Your task to perform on an android device: Search for pizza restaurants on Maps Image 0: 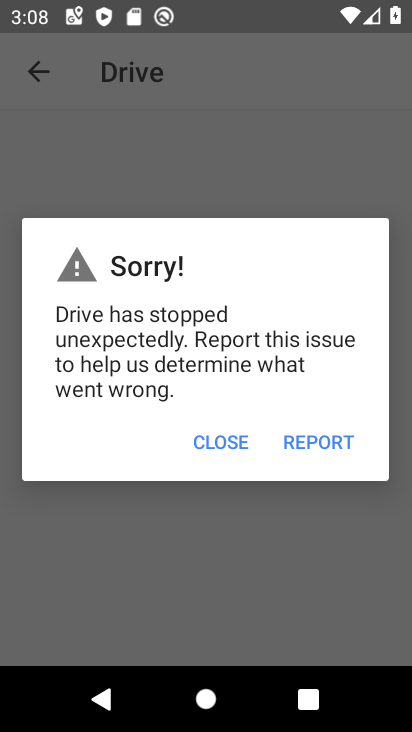
Step 0: press back button
Your task to perform on an android device: Search for pizza restaurants on Maps Image 1: 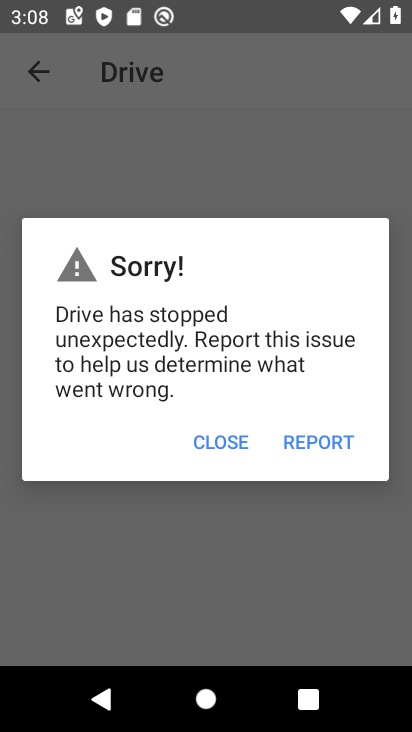
Step 1: press home button
Your task to perform on an android device: Search for pizza restaurants on Maps Image 2: 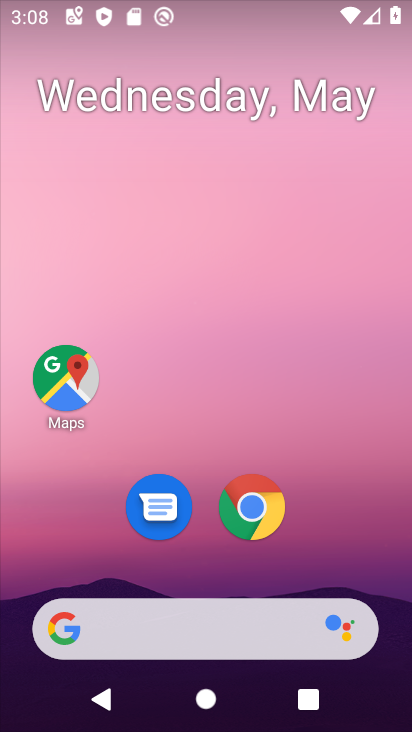
Step 2: click (44, 368)
Your task to perform on an android device: Search for pizza restaurants on Maps Image 3: 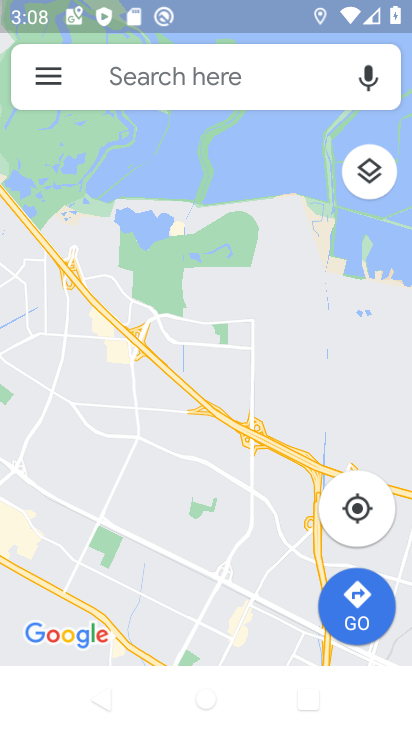
Step 3: click (211, 64)
Your task to perform on an android device: Search for pizza restaurants on Maps Image 4: 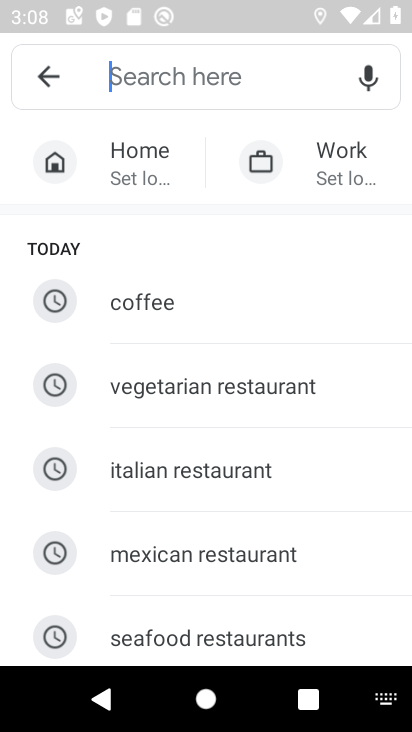
Step 4: drag from (157, 536) to (235, 160)
Your task to perform on an android device: Search for pizza restaurants on Maps Image 5: 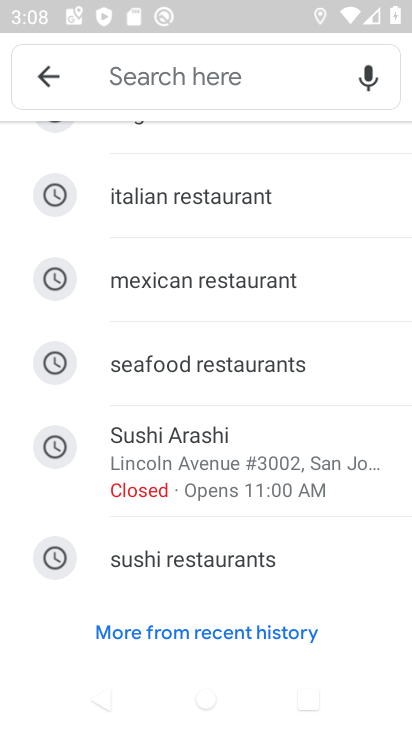
Step 5: click (133, 71)
Your task to perform on an android device: Search for pizza restaurants on Maps Image 6: 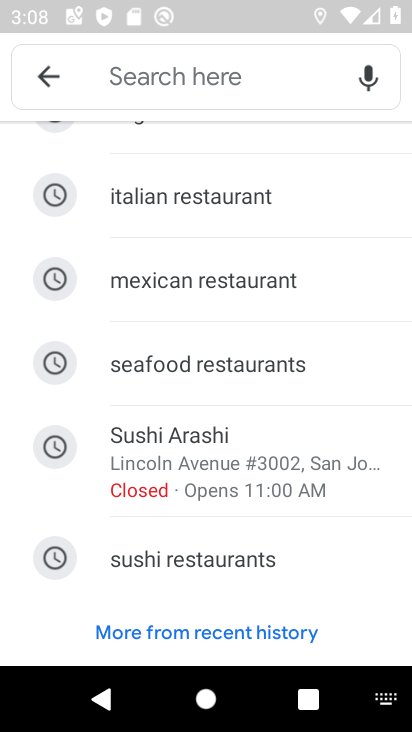
Step 6: type "pizza"
Your task to perform on an android device: Search for pizza restaurants on Maps Image 7: 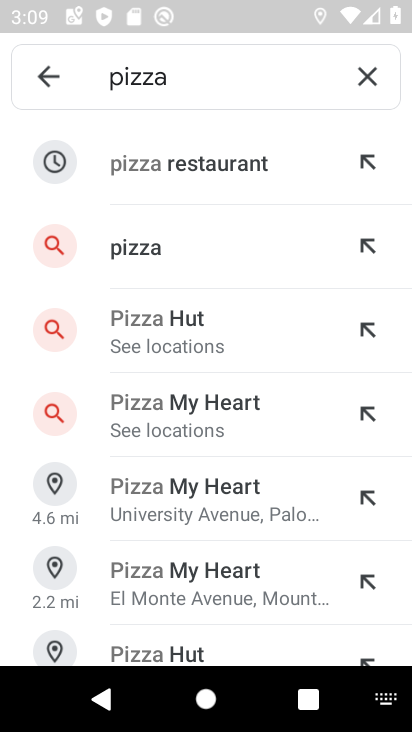
Step 7: click (192, 164)
Your task to perform on an android device: Search for pizza restaurants on Maps Image 8: 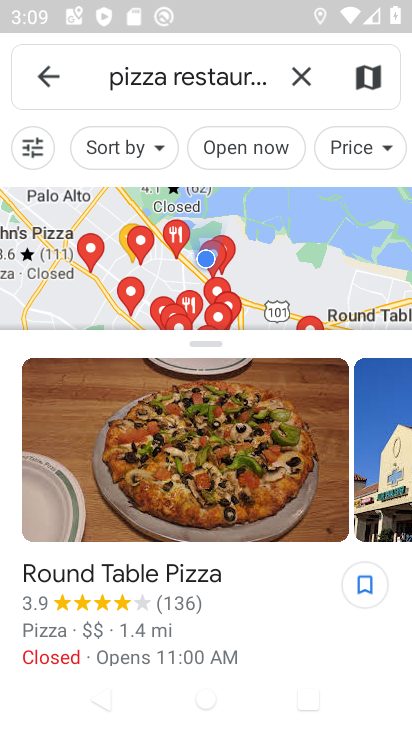
Step 8: task complete